Your task to perform on an android device: turn off notifications in google photos Image 0: 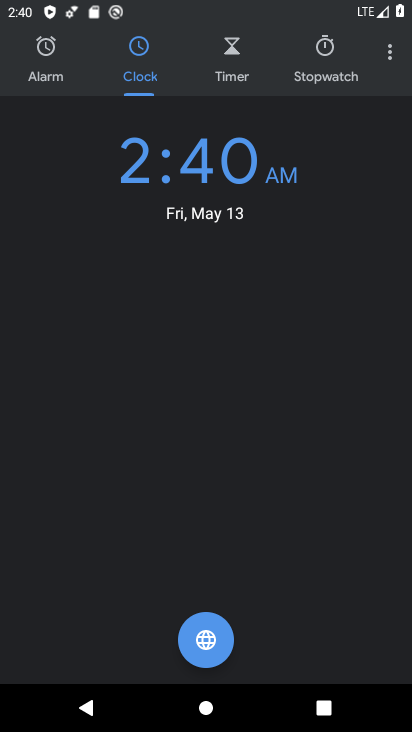
Step 0: press home button
Your task to perform on an android device: turn off notifications in google photos Image 1: 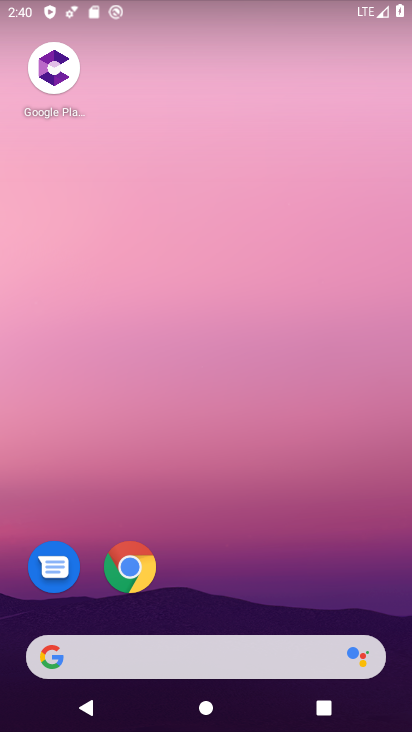
Step 1: drag from (201, 615) to (172, 73)
Your task to perform on an android device: turn off notifications in google photos Image 2: 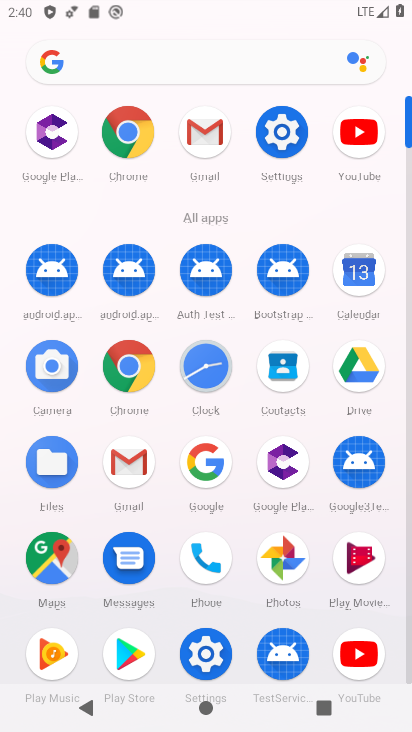
Step 2: click (278, 564)
Your task to perform on an android device: turn off notifications in google photos Image 3: 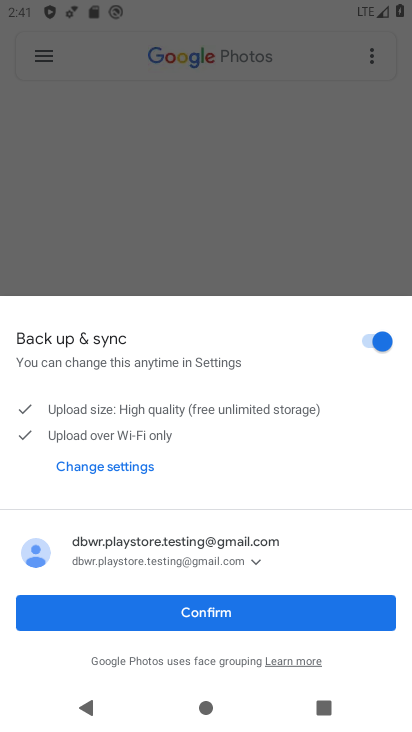
Step 3: click (258, 617)
Your task to perform on an android device: turn off notifications in google photos Image 4: 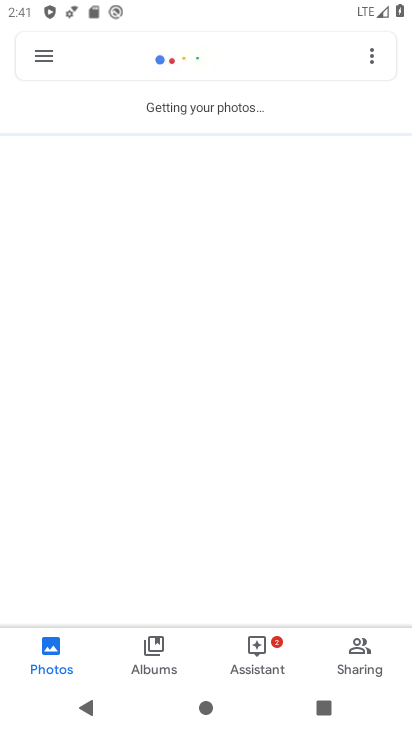
Step 4: click (39, 53)
Your task to perform on an android device: turn off notifications in google photos Image 5: 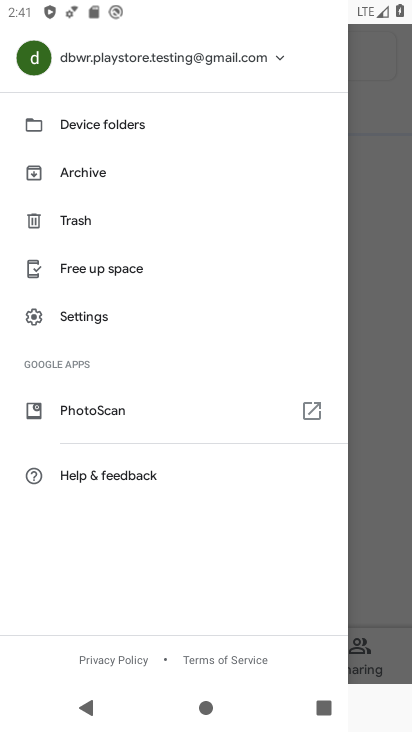
Step 5: click (81, 319)
Your task to perform on an android device: turn off notifications in google photos Image 6: 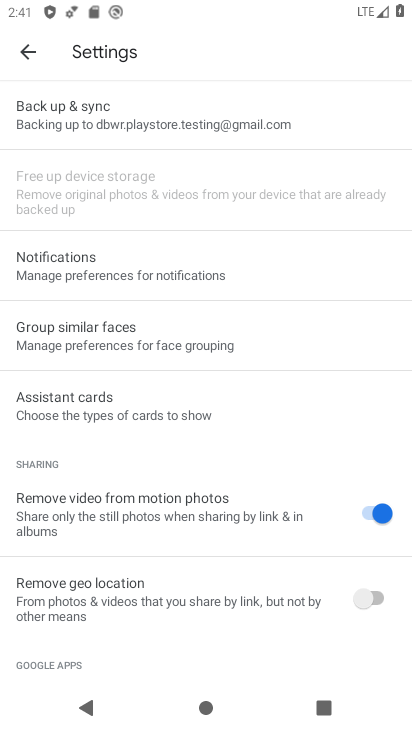
Step 6: click (83, 248)
Your task to perform on an android device: turn off notifications in google photos Image 7: 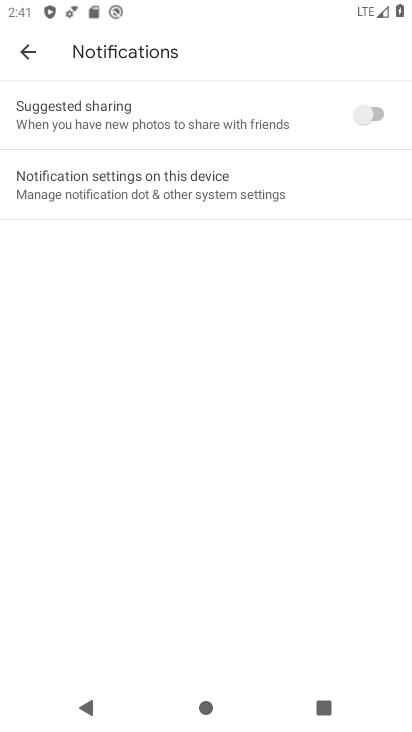
Step 7: click (131, 170)
Your task to perform on an android device: turn off notifications in google photos Image 8: 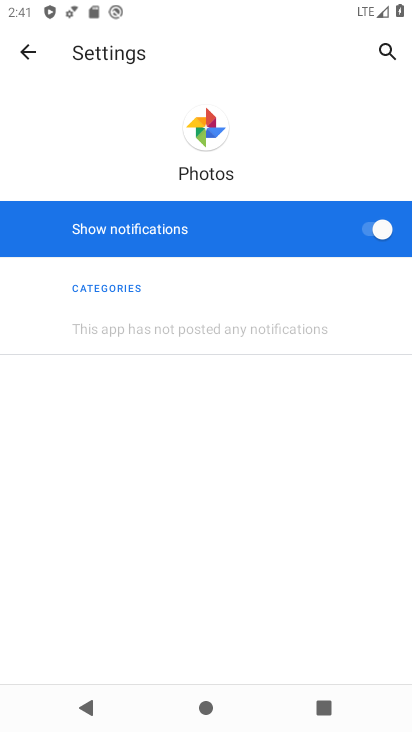
Step 8: click (367, 230)
Your task to perform on an android device: turn off notifications in google photos Image 9: 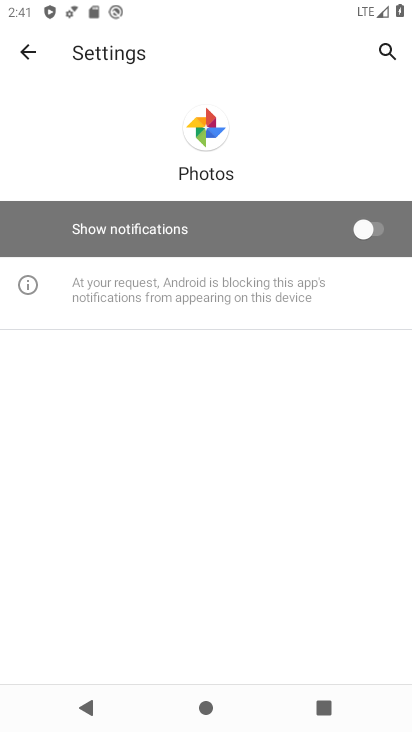
Step 9: task complete